Your task to perform on an android device: delete location history Image 0: 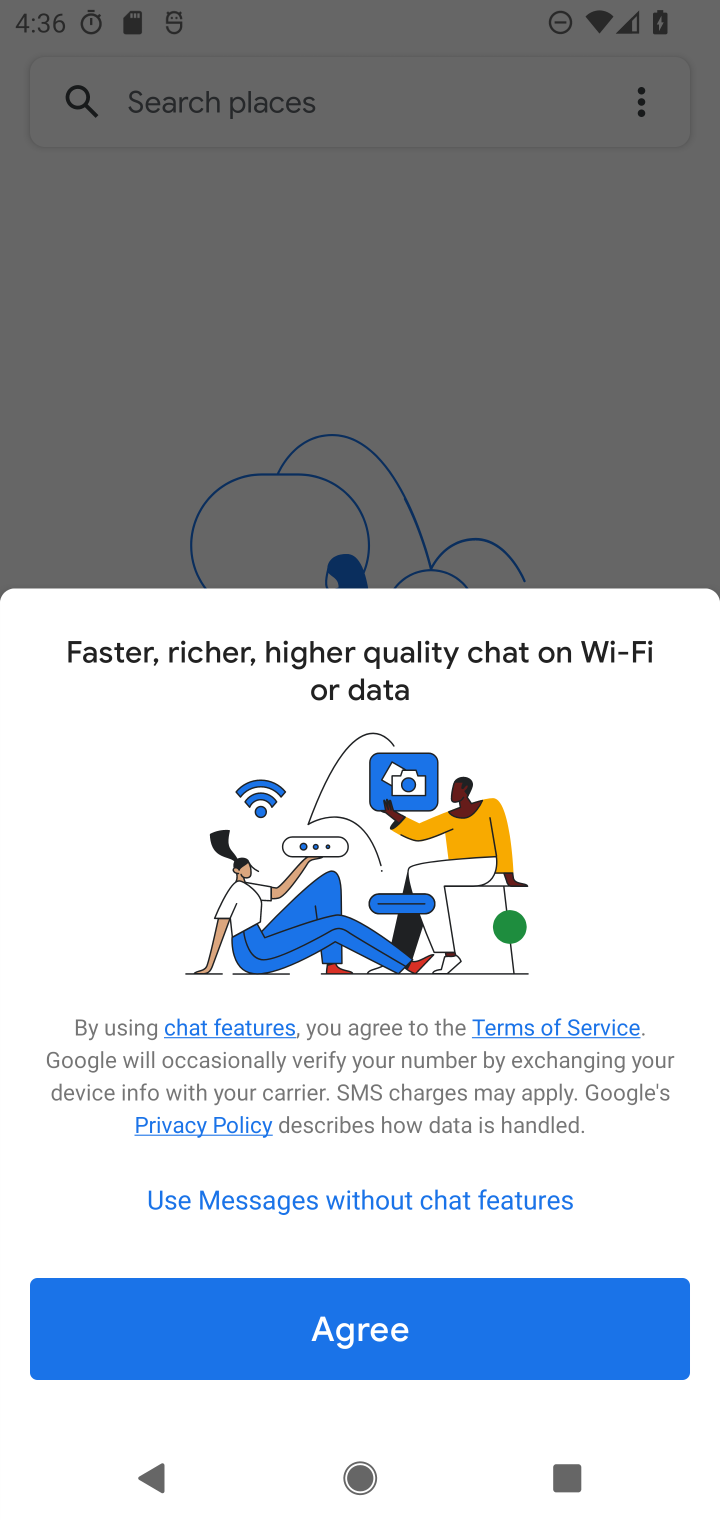
Step 0: press home button
Your task to perform on an android device: delete location history Image 1: 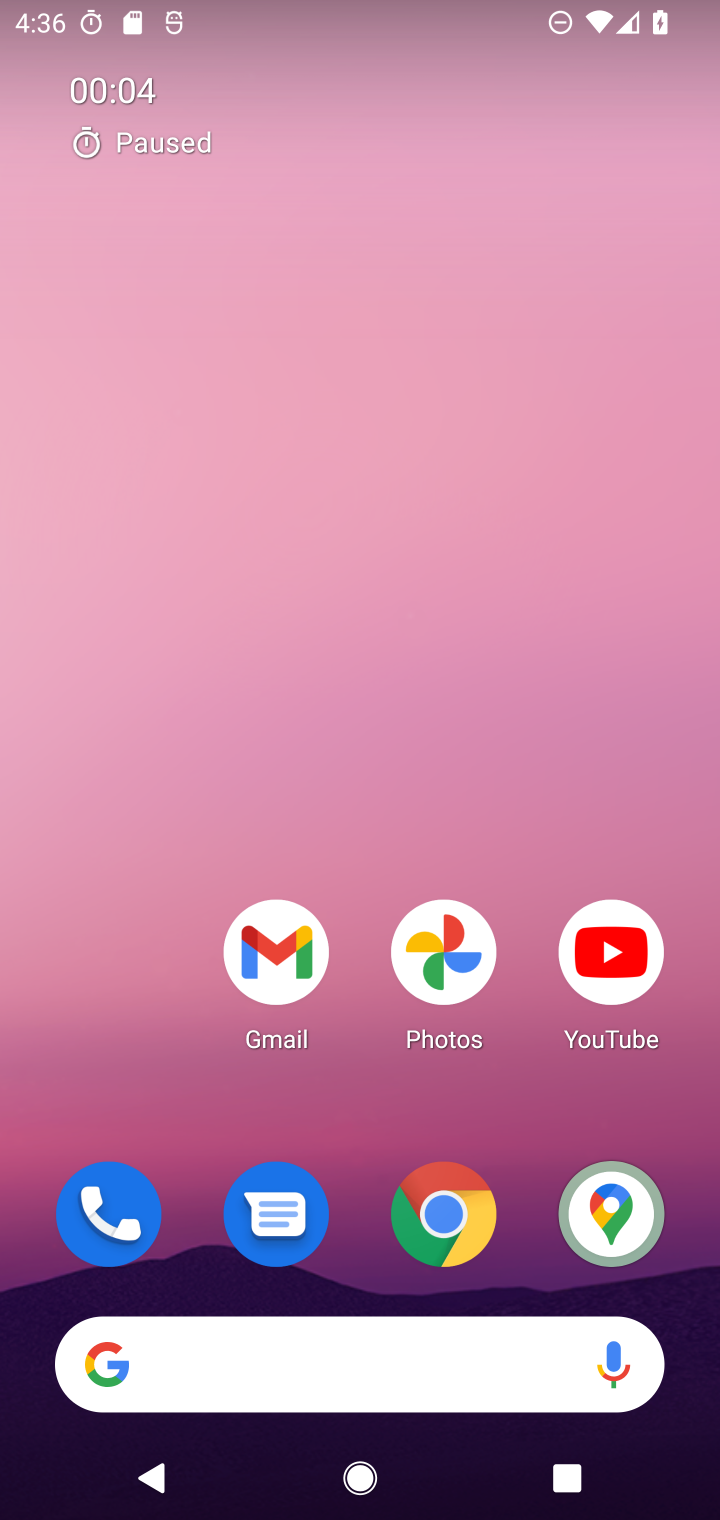
Step 1: drag from (393, 952) to (432, 592)
Your task to perform on an android device: delete location history Image 2: 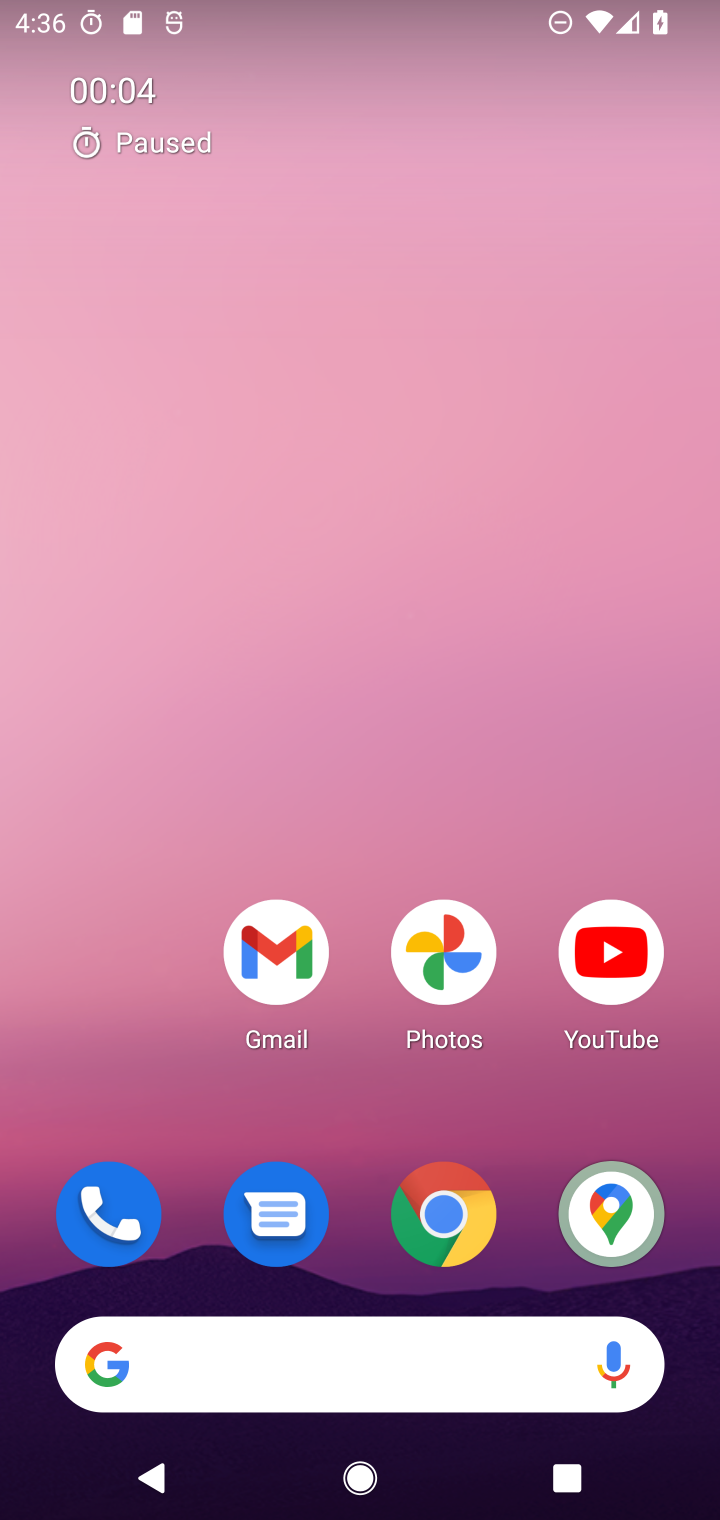
Step 2: drag from (346, 1236) to (406, 488)
Your task to perform on an android device: delete location history Image 3: 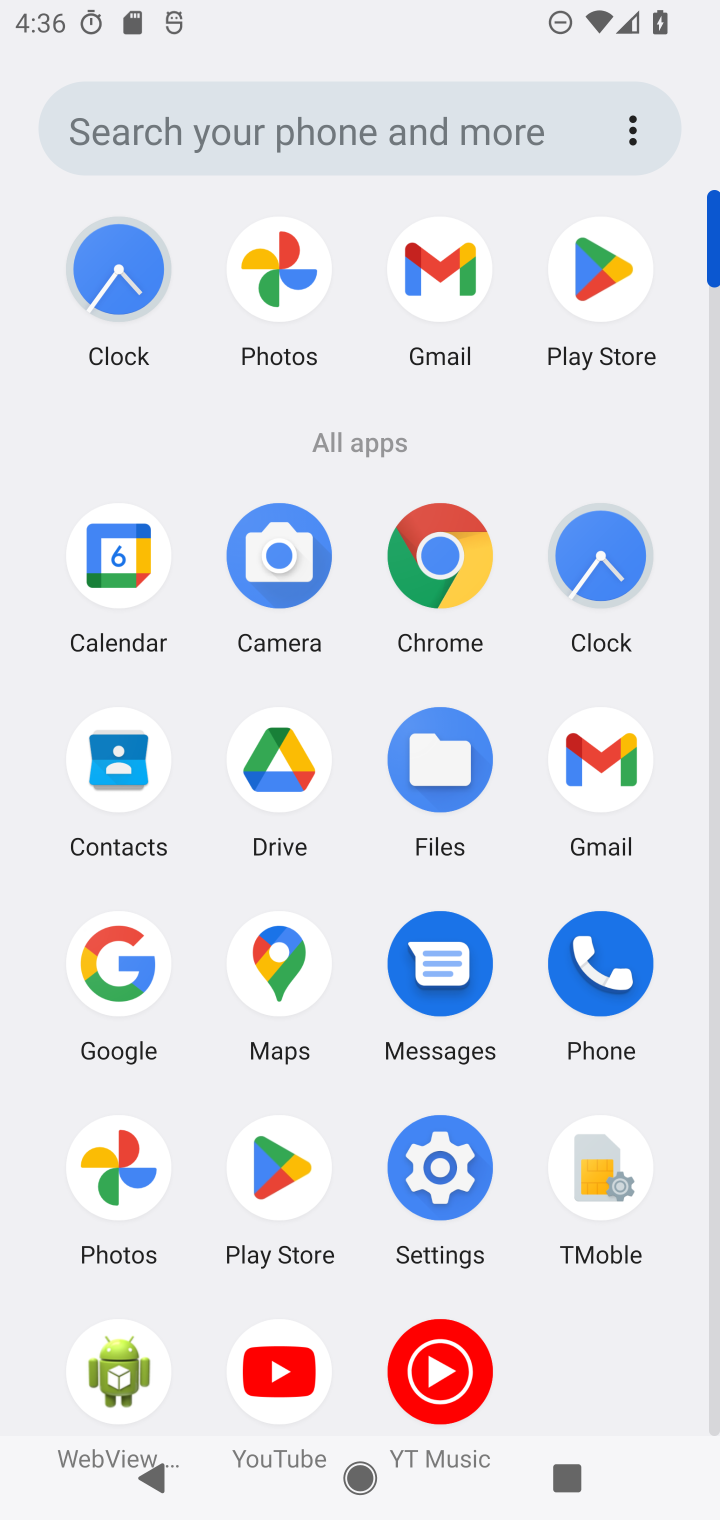
Step 3: click (438, 1175)
Your task to perform on an android device: delete location history Image 4: 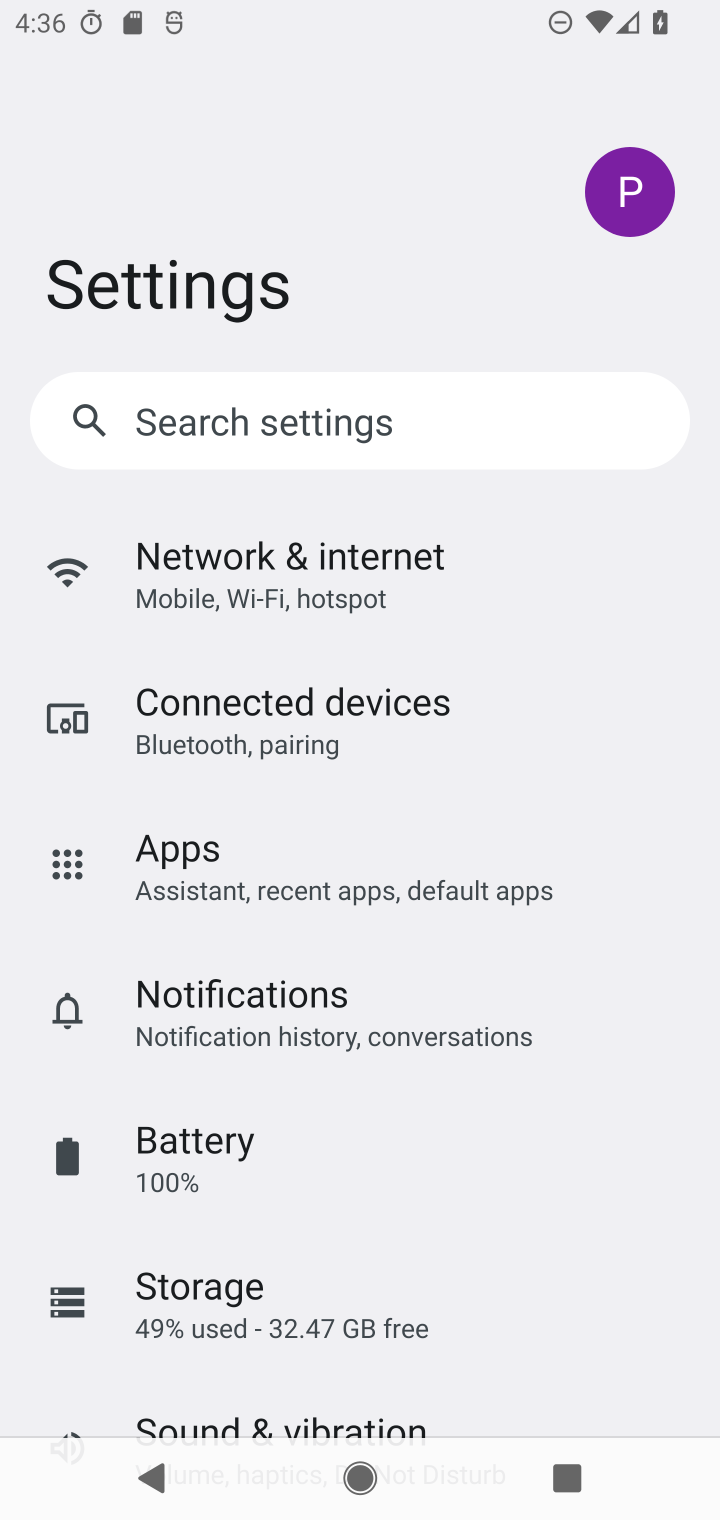
Step 4: drag from (449, 1050) to (453, 543)
Your task to perform on an android device: delete location history Image 5: 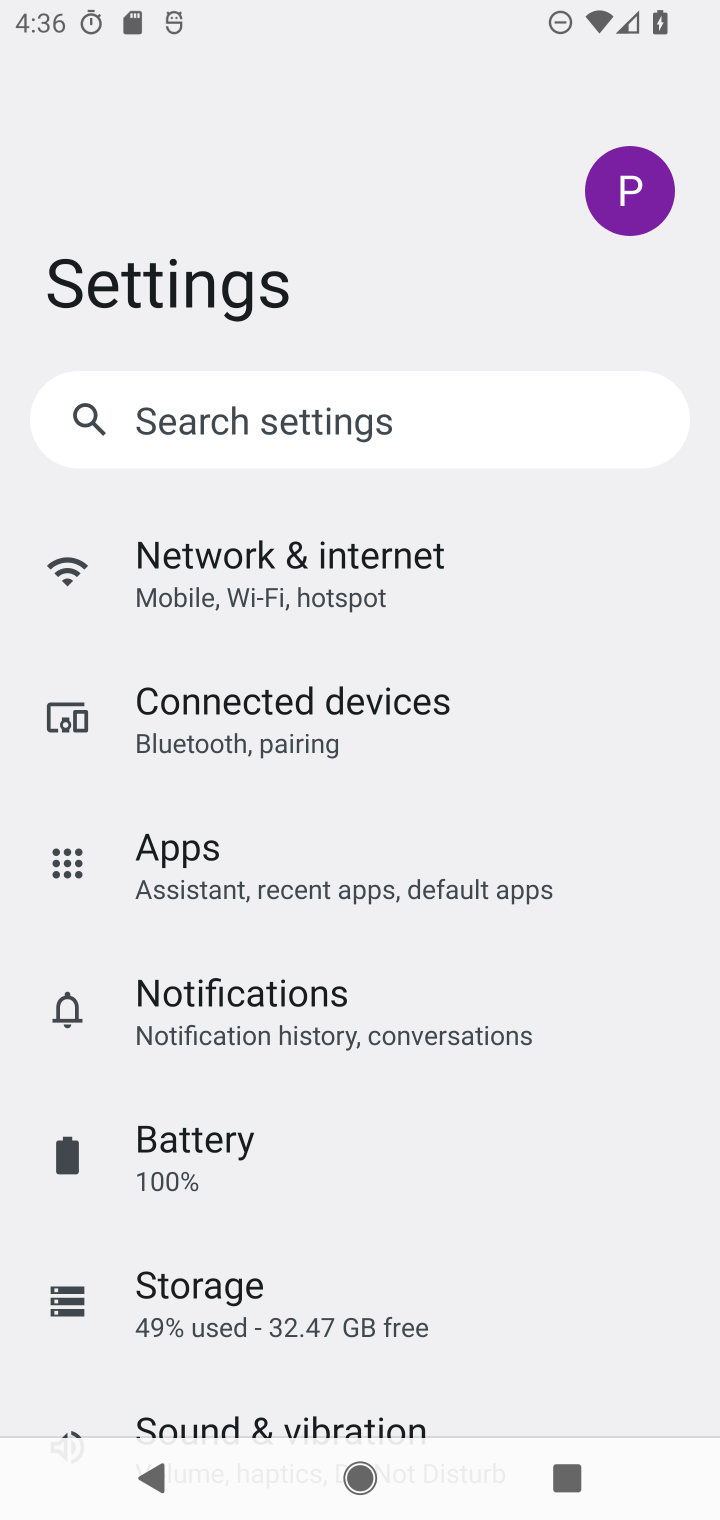
Step 5: drag from (201, 1168) to (382, 467)
Your task to perform on an android device: delete location history Image 6: 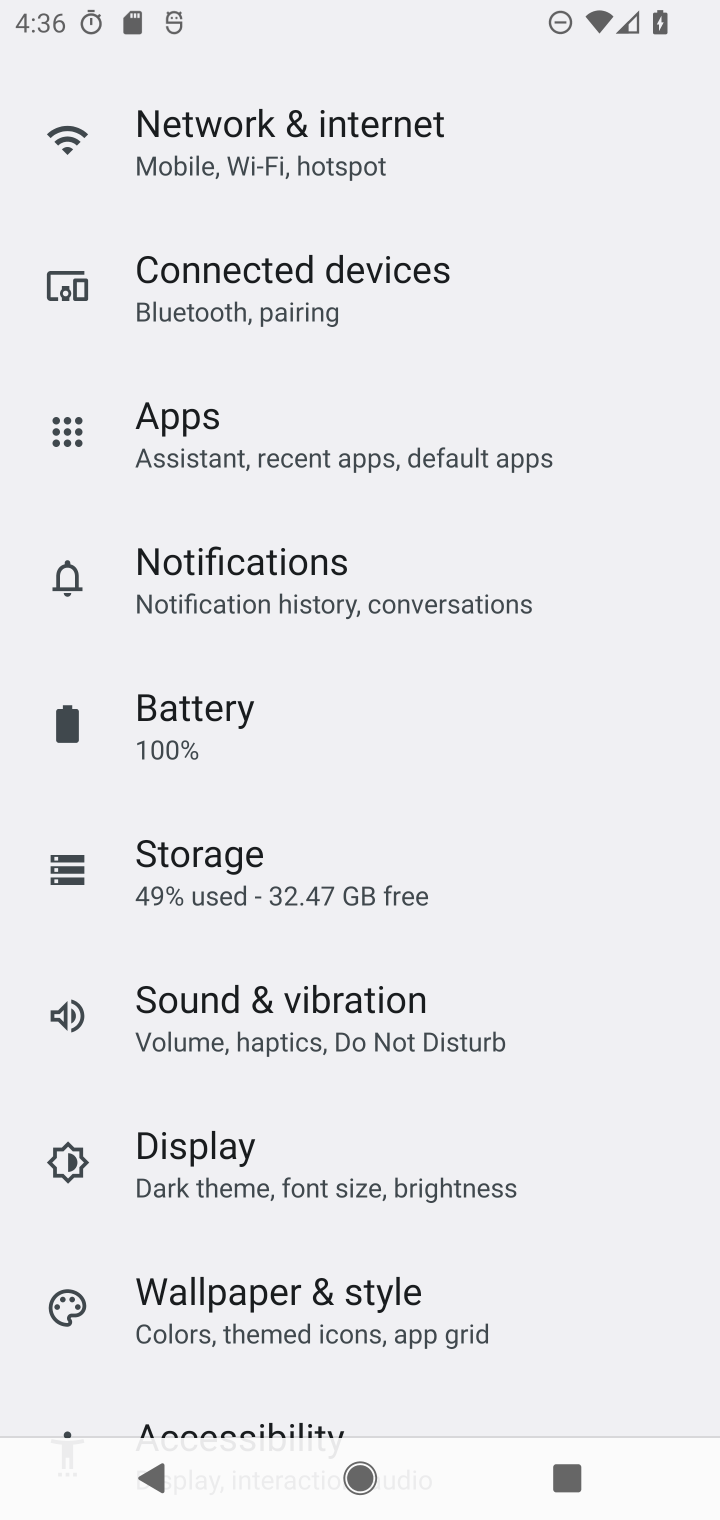
Step 6: drag from (258, 788) to (319, 495)
Your task to perform on an android device: delete location history Image 7: 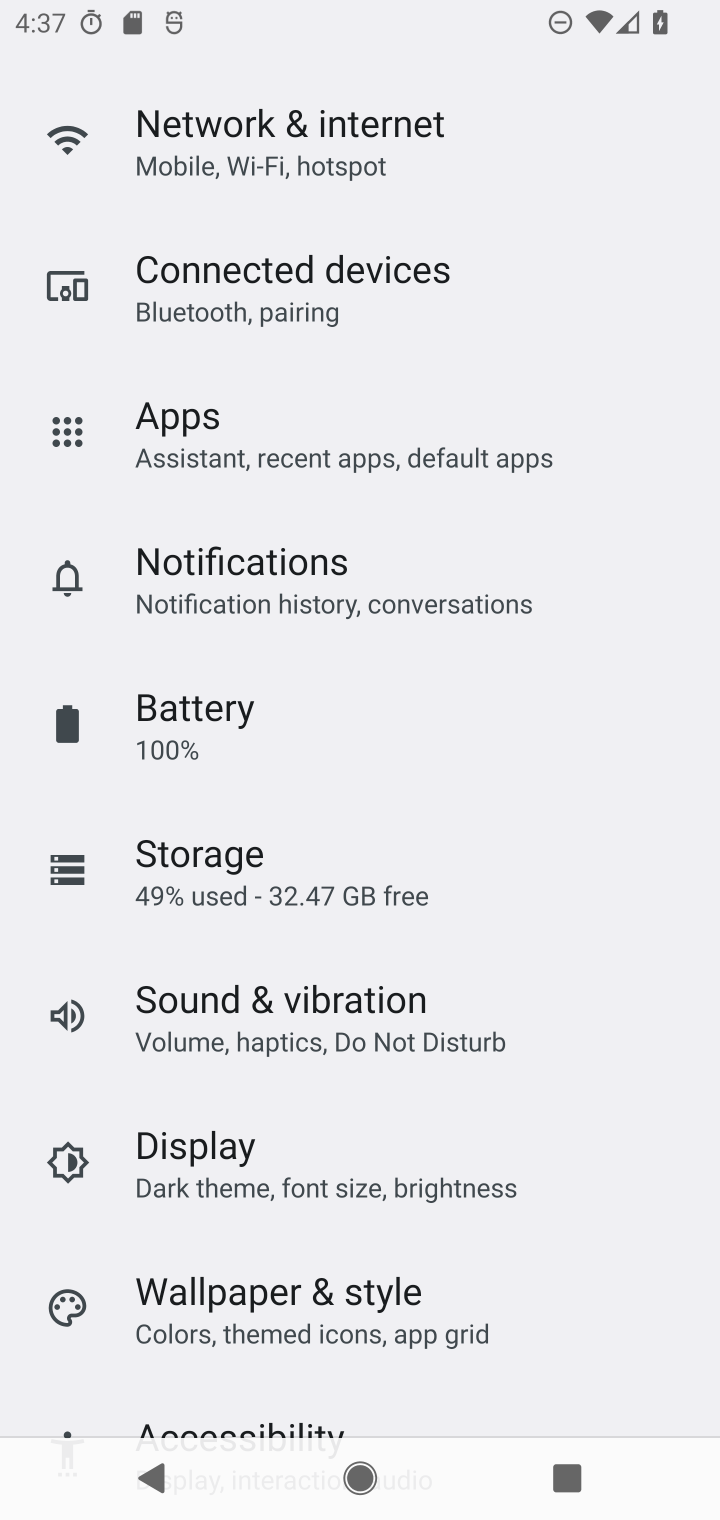
Step 7: drag from (309, 1169) to (390, 754)
Your task to perform on an android device: delete location history Image 8: 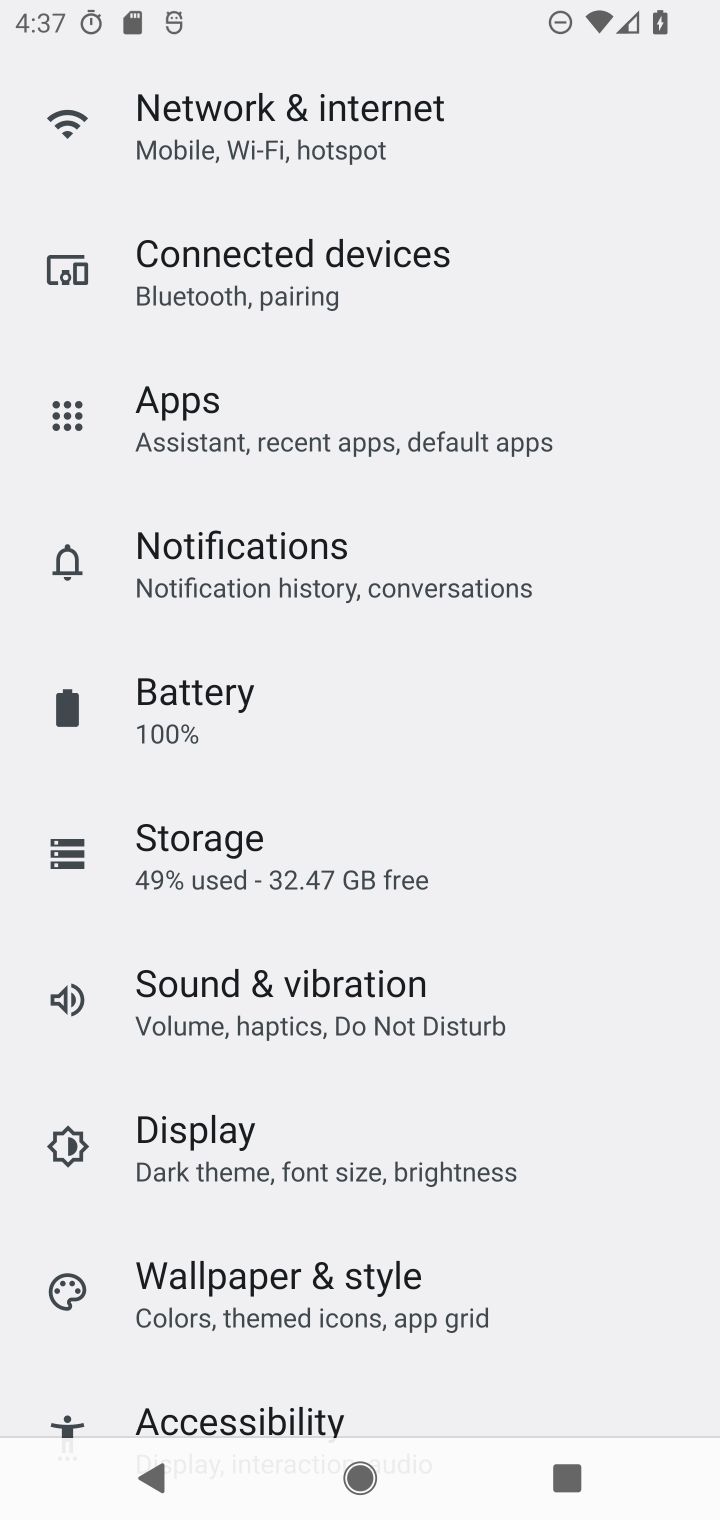
Step 8: drag from (270, 1160) to (281, 589)
Your task to perform on an android device: delete location history Image 9: 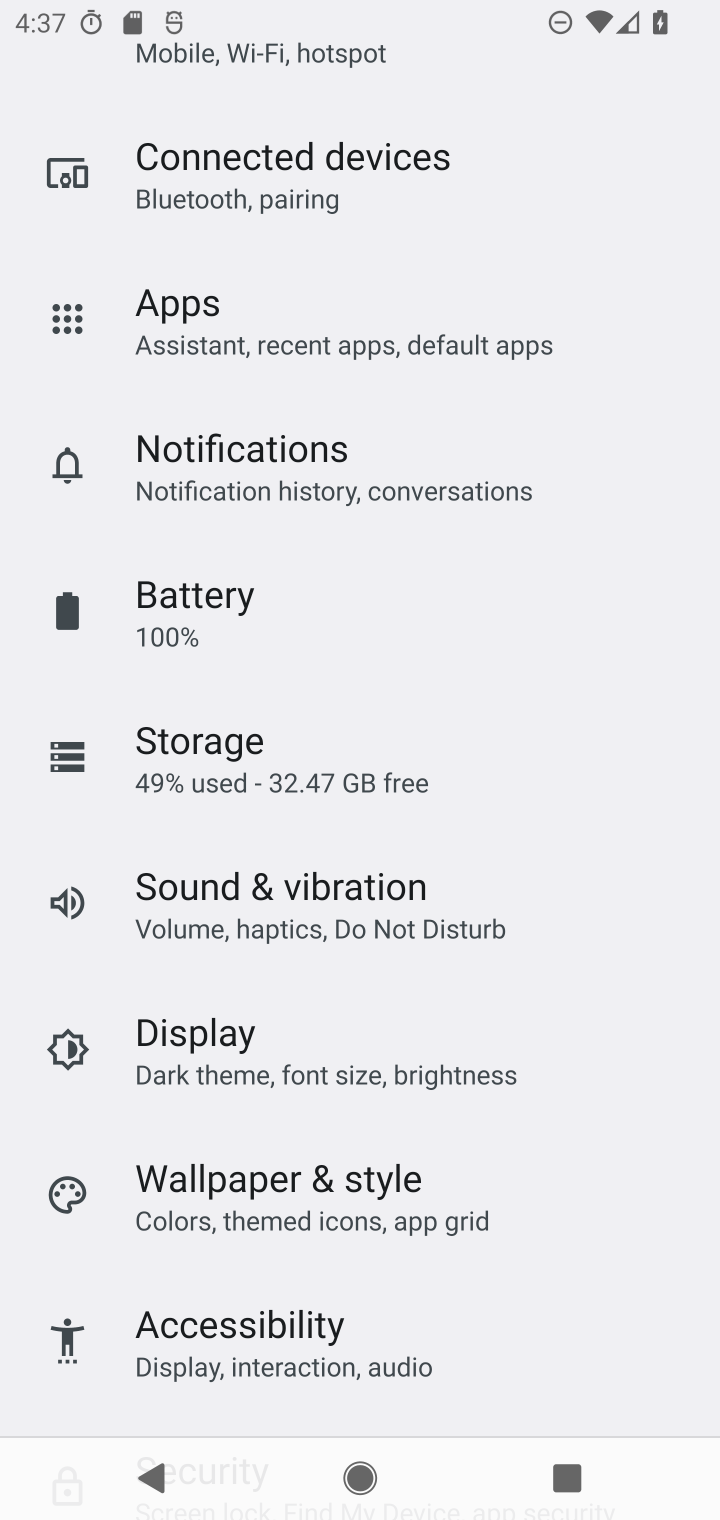
Step 9: drag from (289, 1167) to (289, 436)
Your task to perform on an android device: delete location history Image 10: 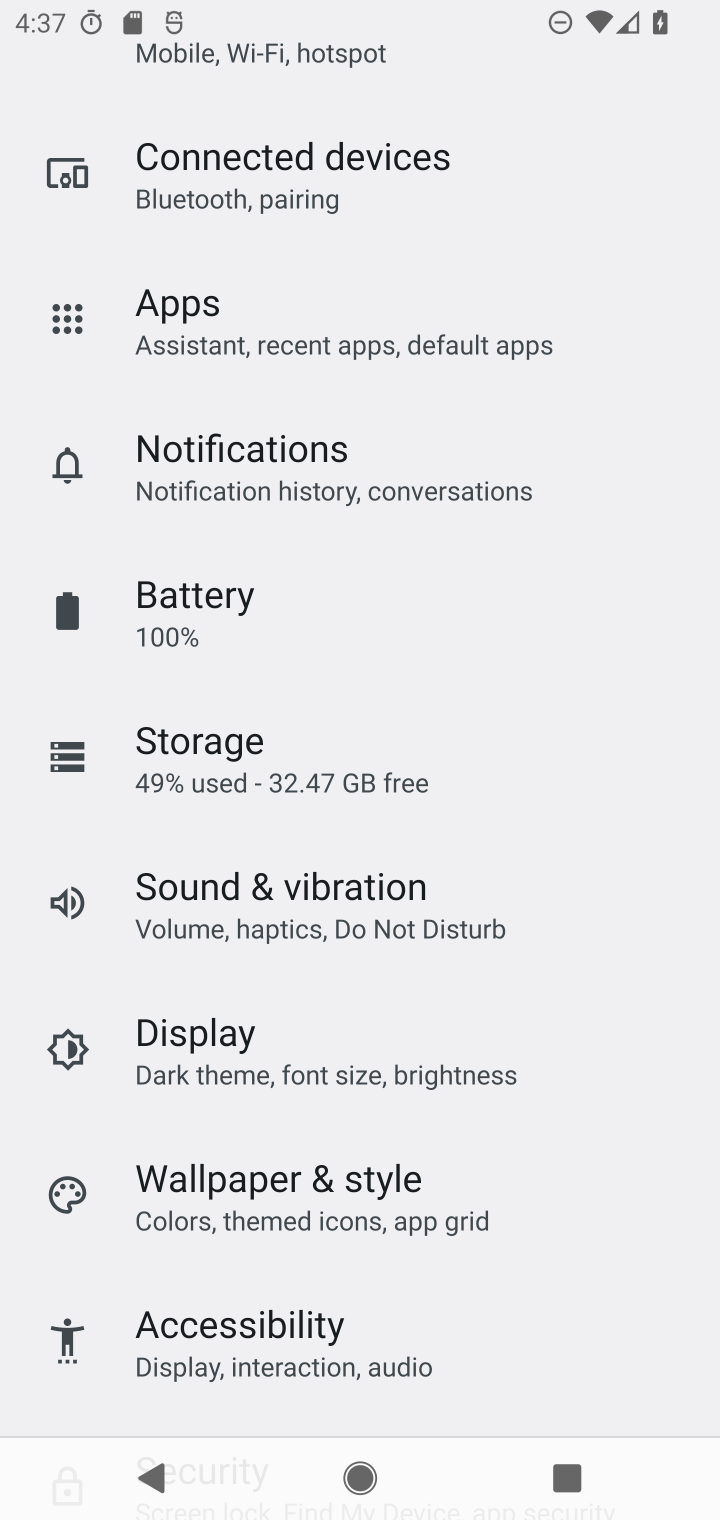
Step 10: drag from (377, 1182) to (463, 187)
Your task to perform on an android device: delete location history Image 11: 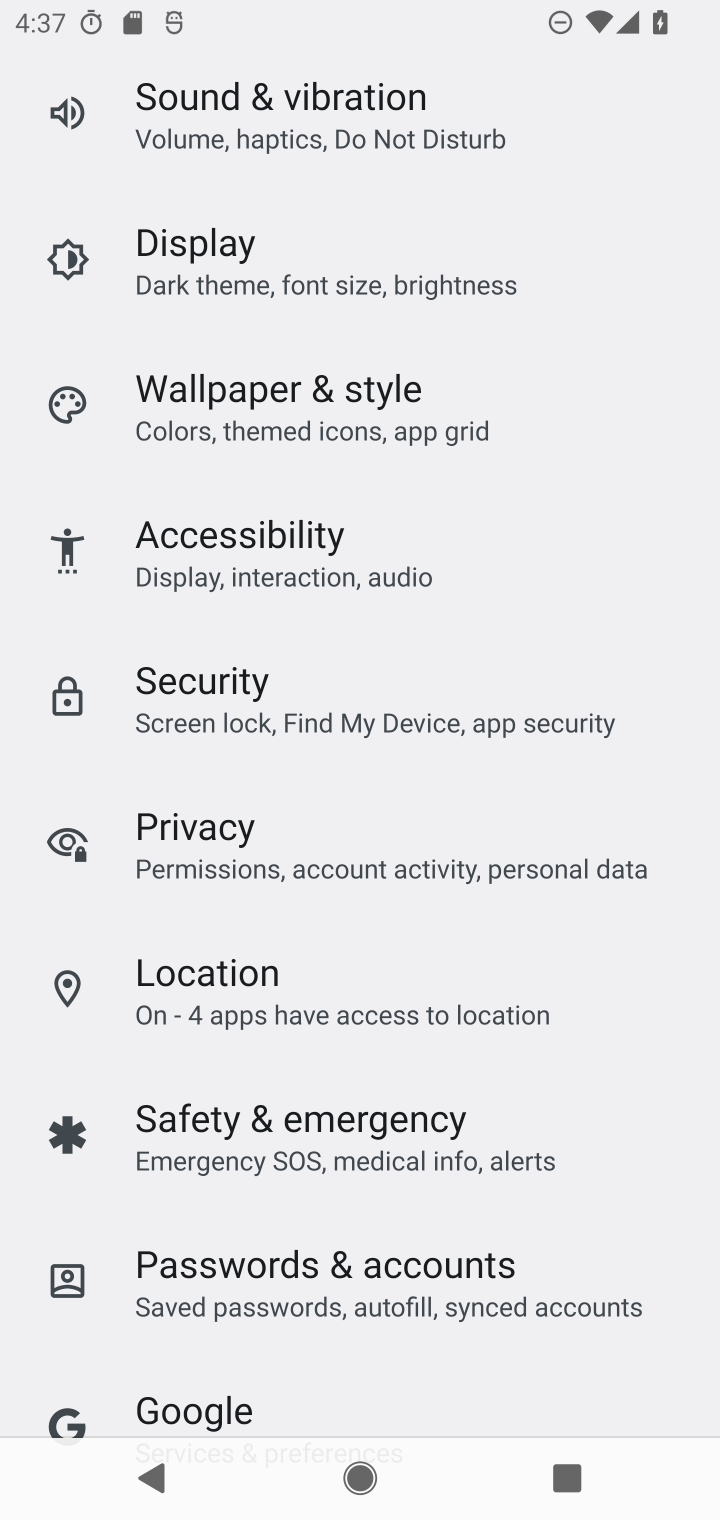
Step 11: click (189, 1019)
Your task to perform on an android device: delete location history Image 12: 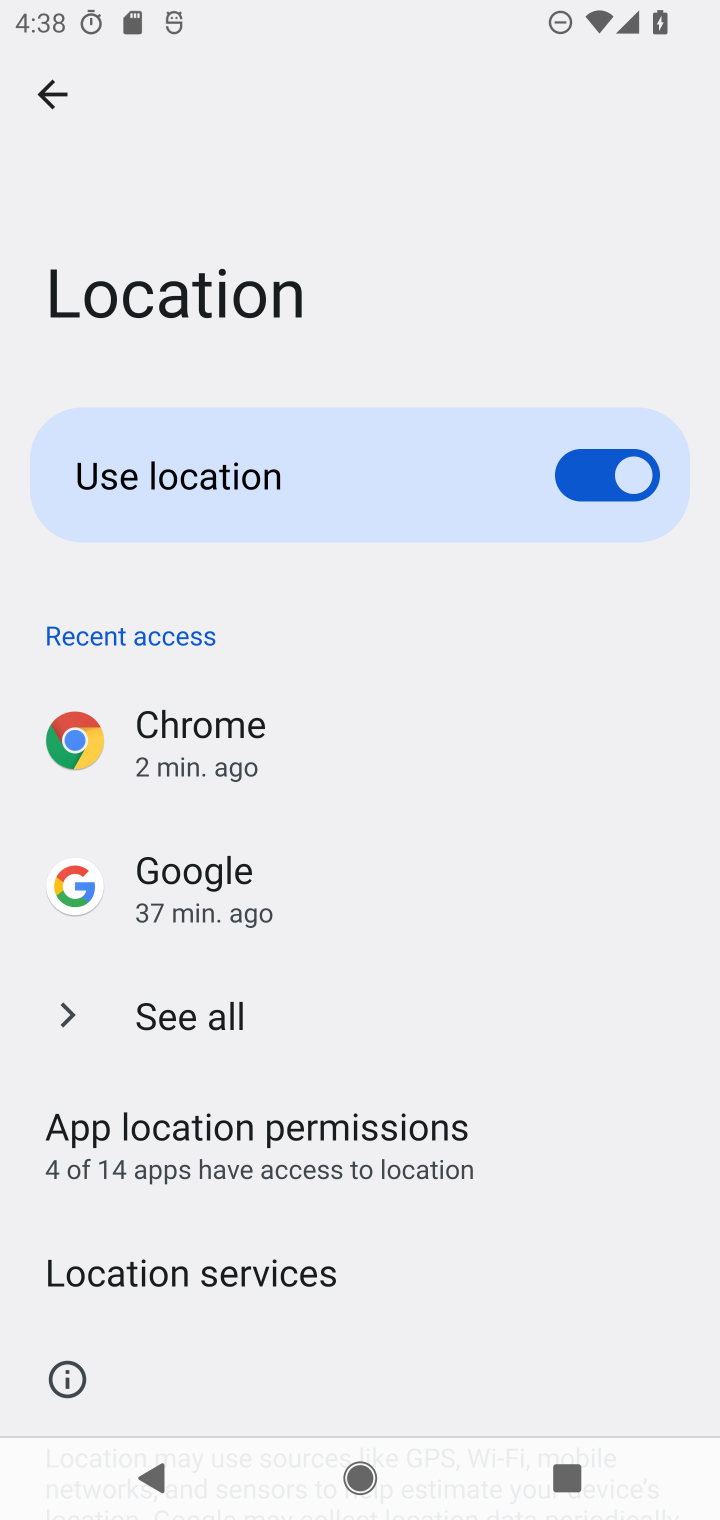
Step 12: press home button
Your task to perform on an android device: delete location history Image 13: 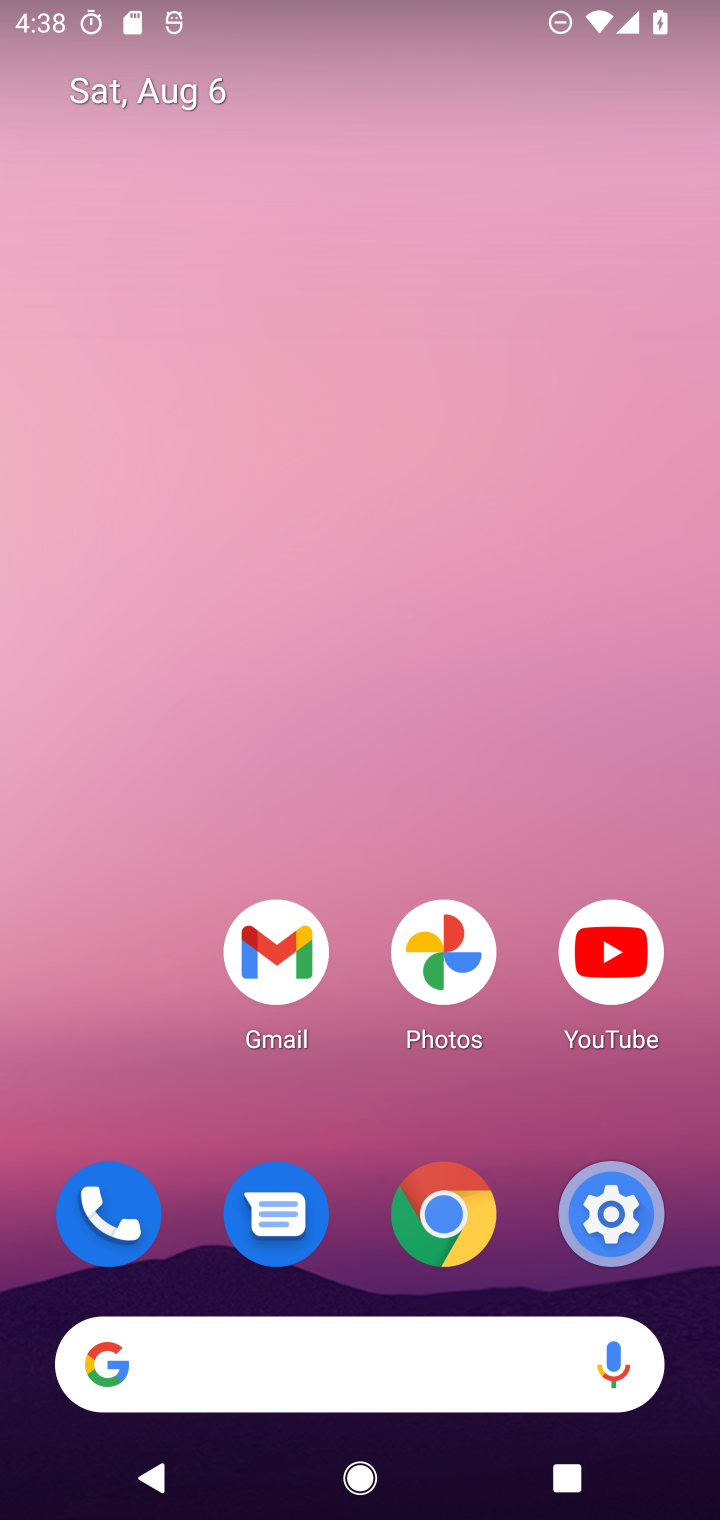
Step 13: click (605, 1213)
Your task to perform on an android device: delete location history Image 14: 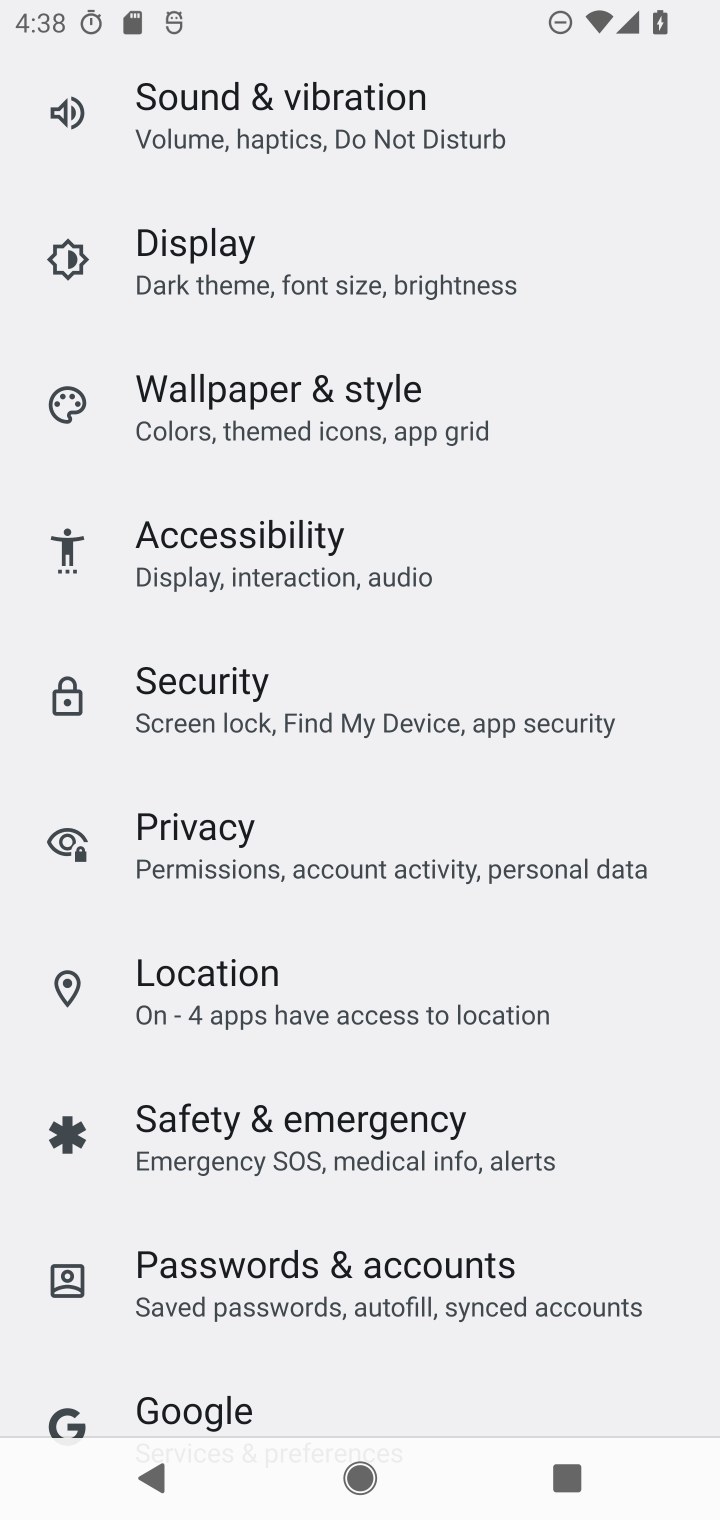
Step 14: click (306, 1000)
Your task to perform on an android device: delete location history Image 15: 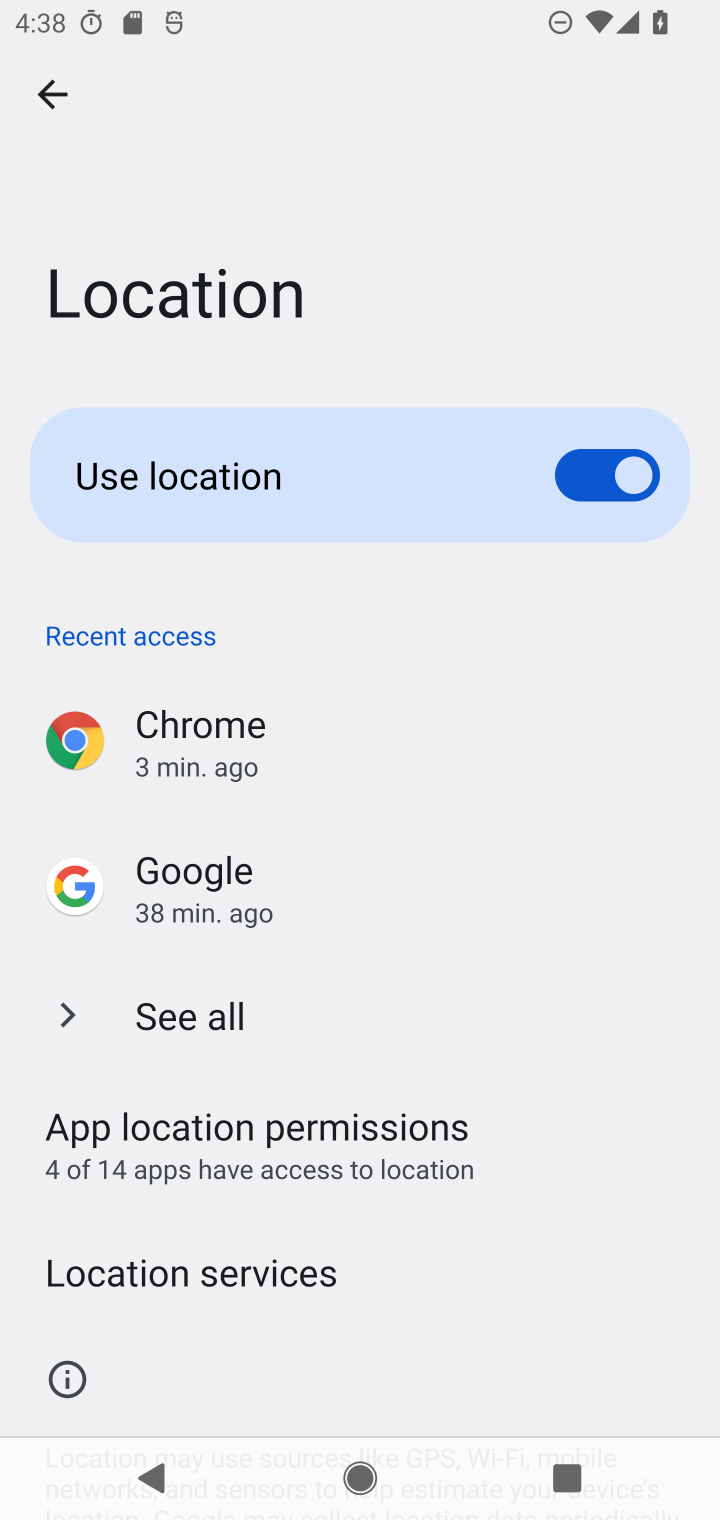
Step 15: drag from (291, 1305) to (287, 623)
Your task to perform on an android device: delete location history Image 16: 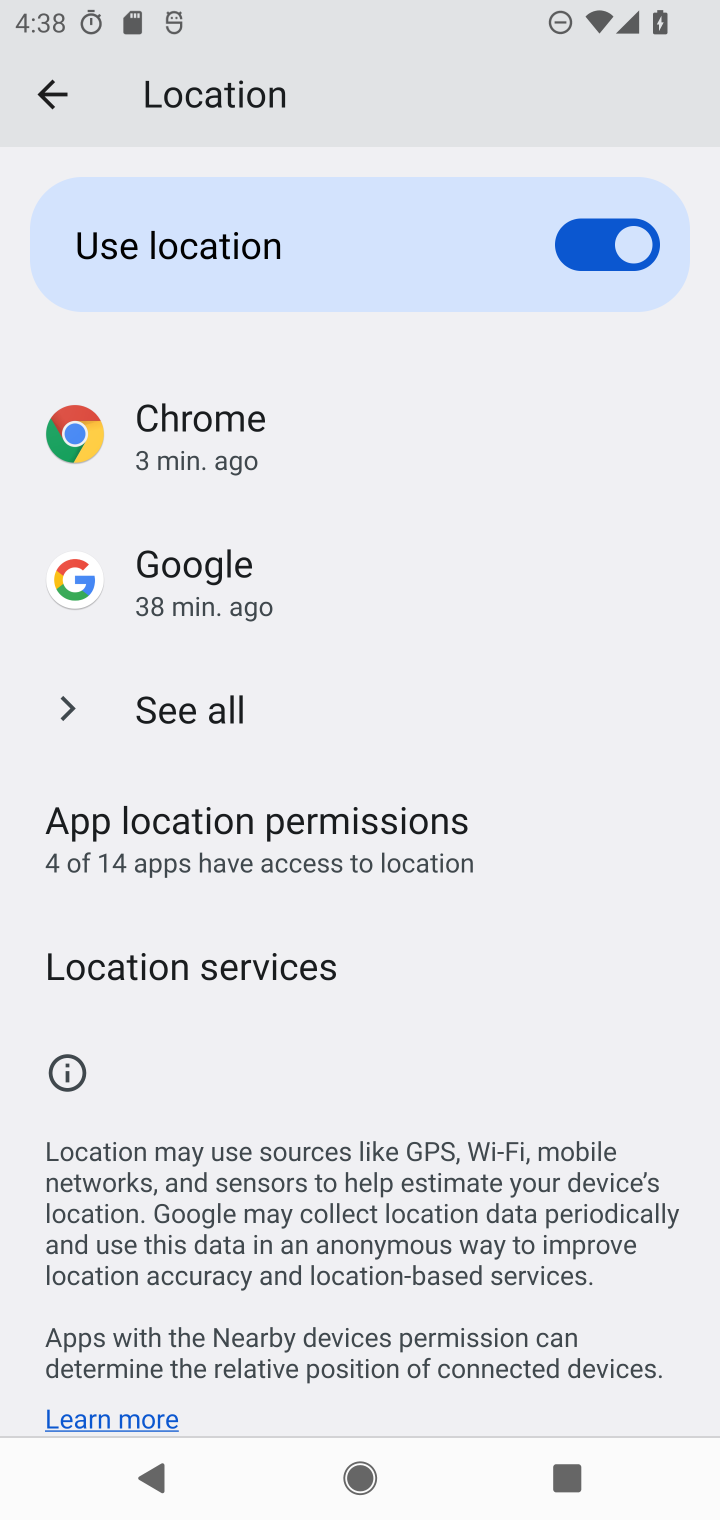
Step 16: click (189, 989)
Your task to perform on an android device: delete location history Image 17: 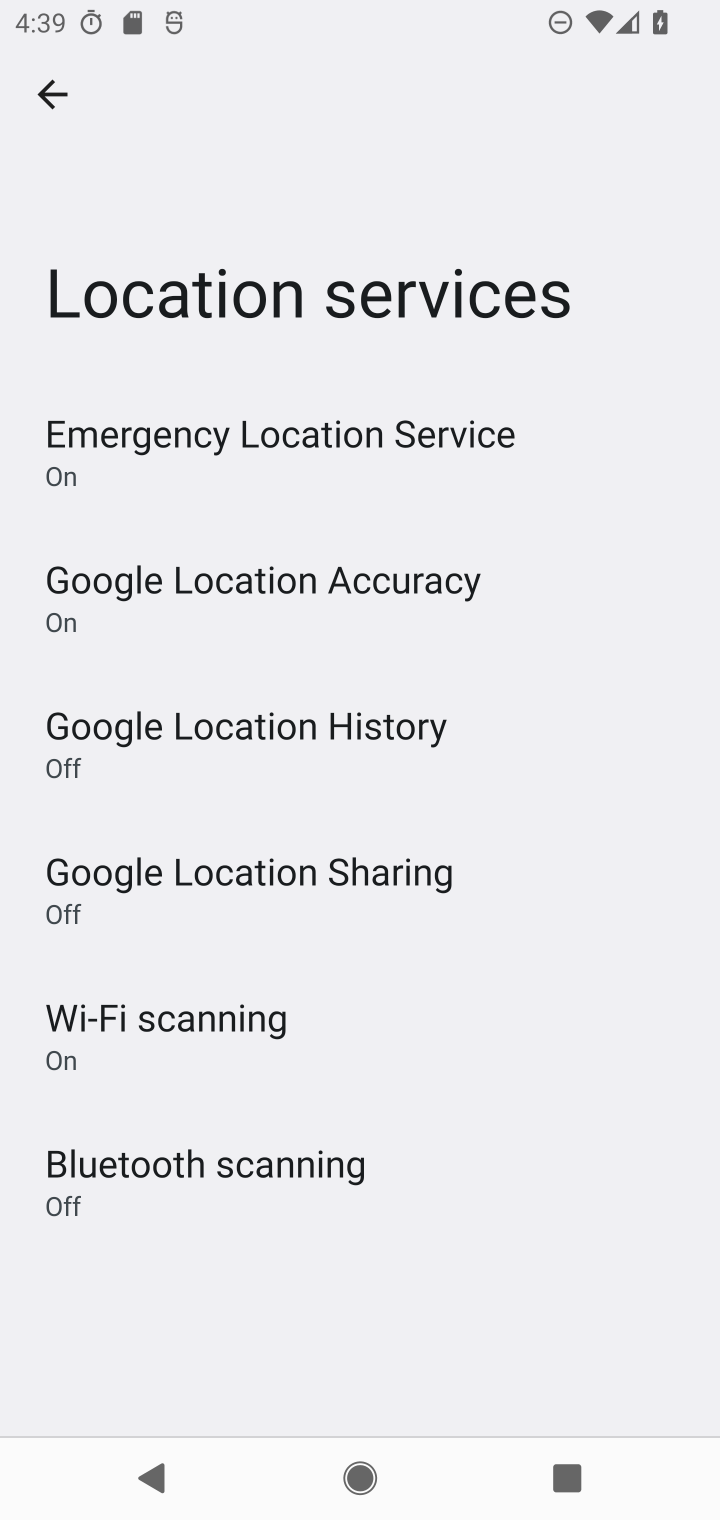
Step 17: click (241, 728)
Your task to perform on an android device: delete location history Image 18: 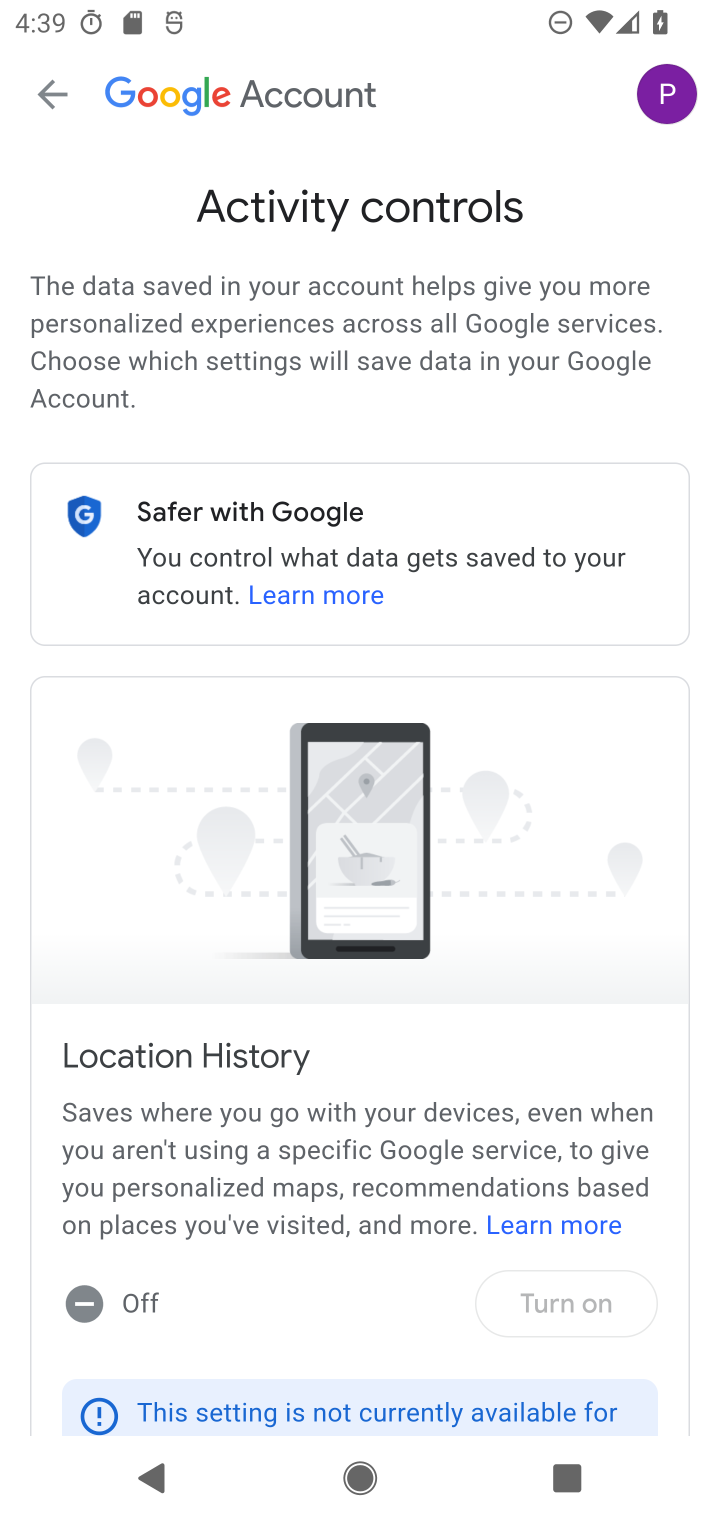
Step 18: drag from (405, 1312) to (405, 806)
Your task to perform on an android device: delete location history Image 19: 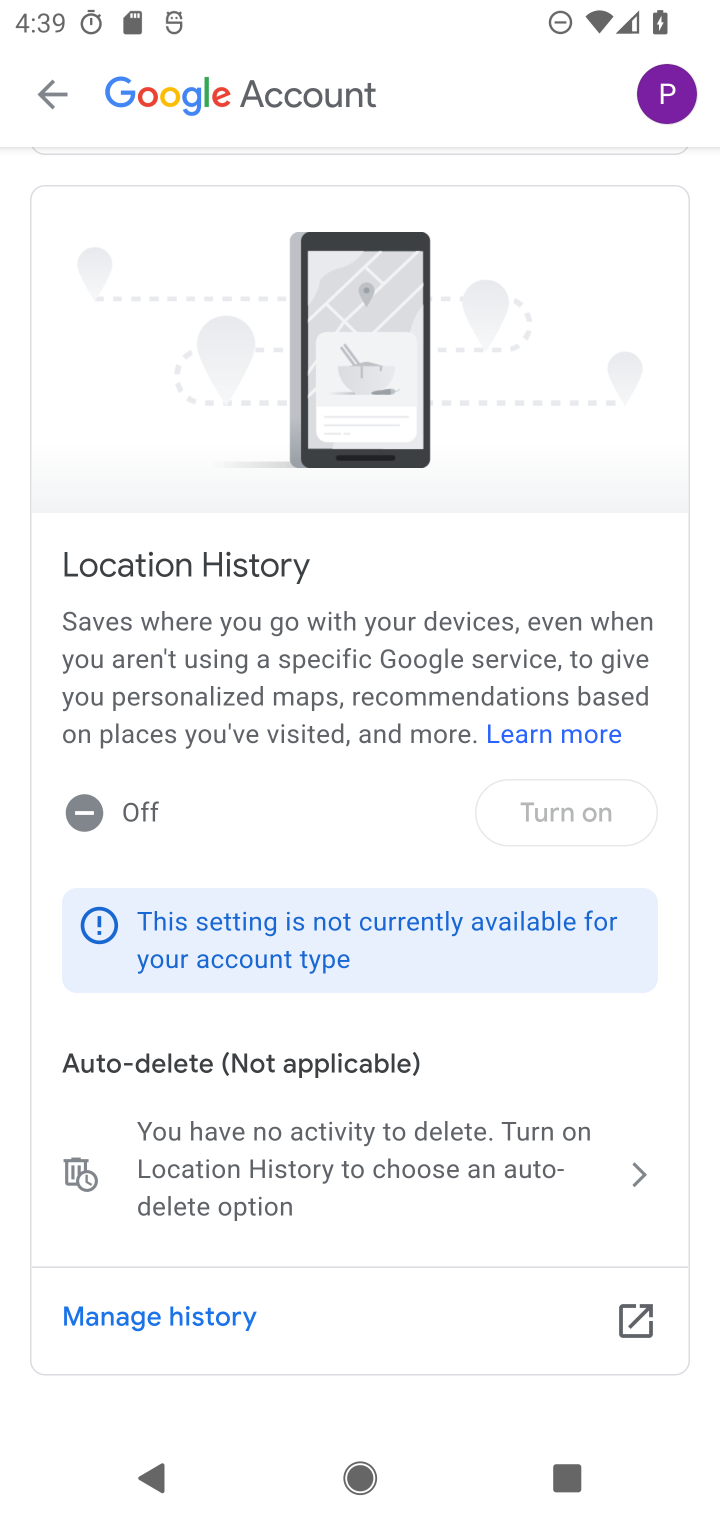
Step 19: click (152, 1309)
Your task to perform on an android device: delete location history Image 20: 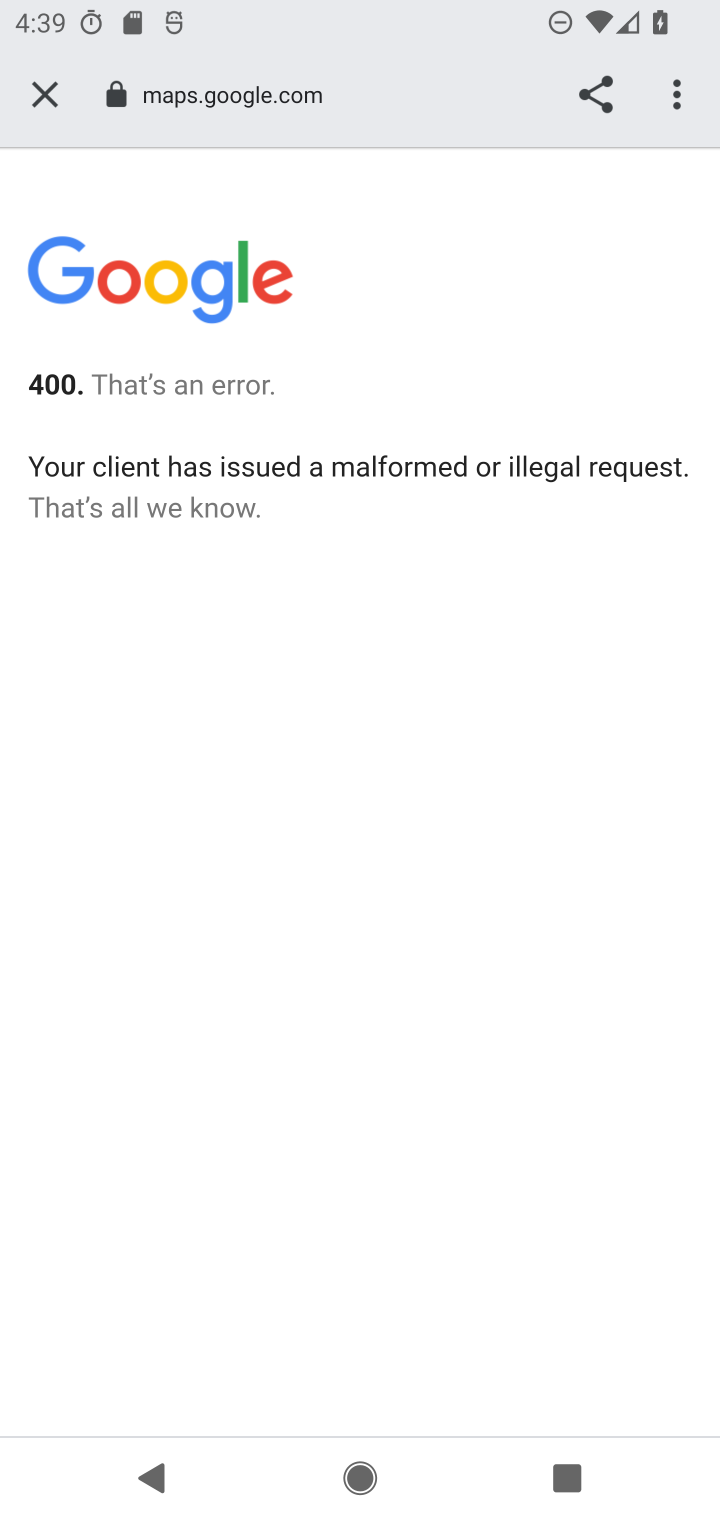
Step 20: click (39, 95)
Your task to perform on an android device: delete location history Image 21: 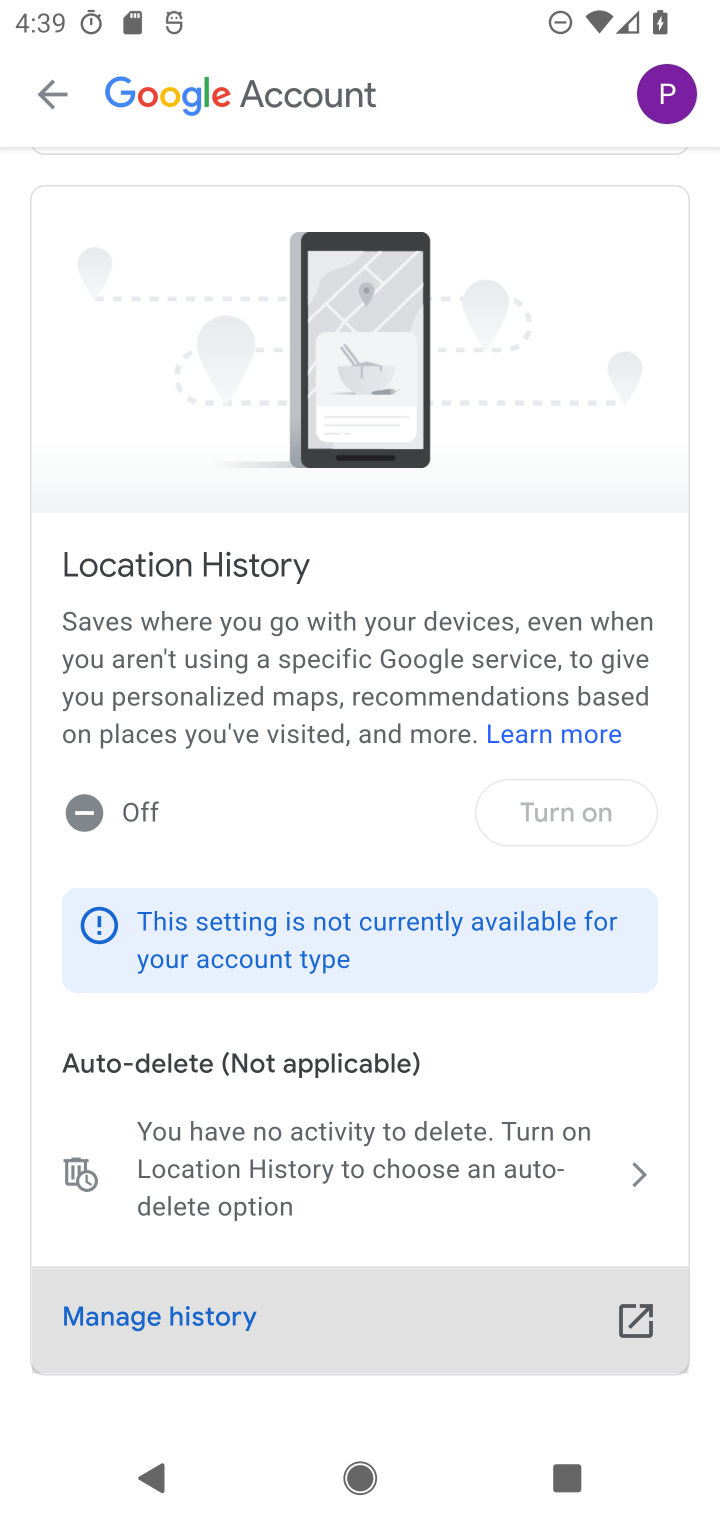
Step 21: click (178, 1321)
Your task to perform on an android device: delete location history Image 22: 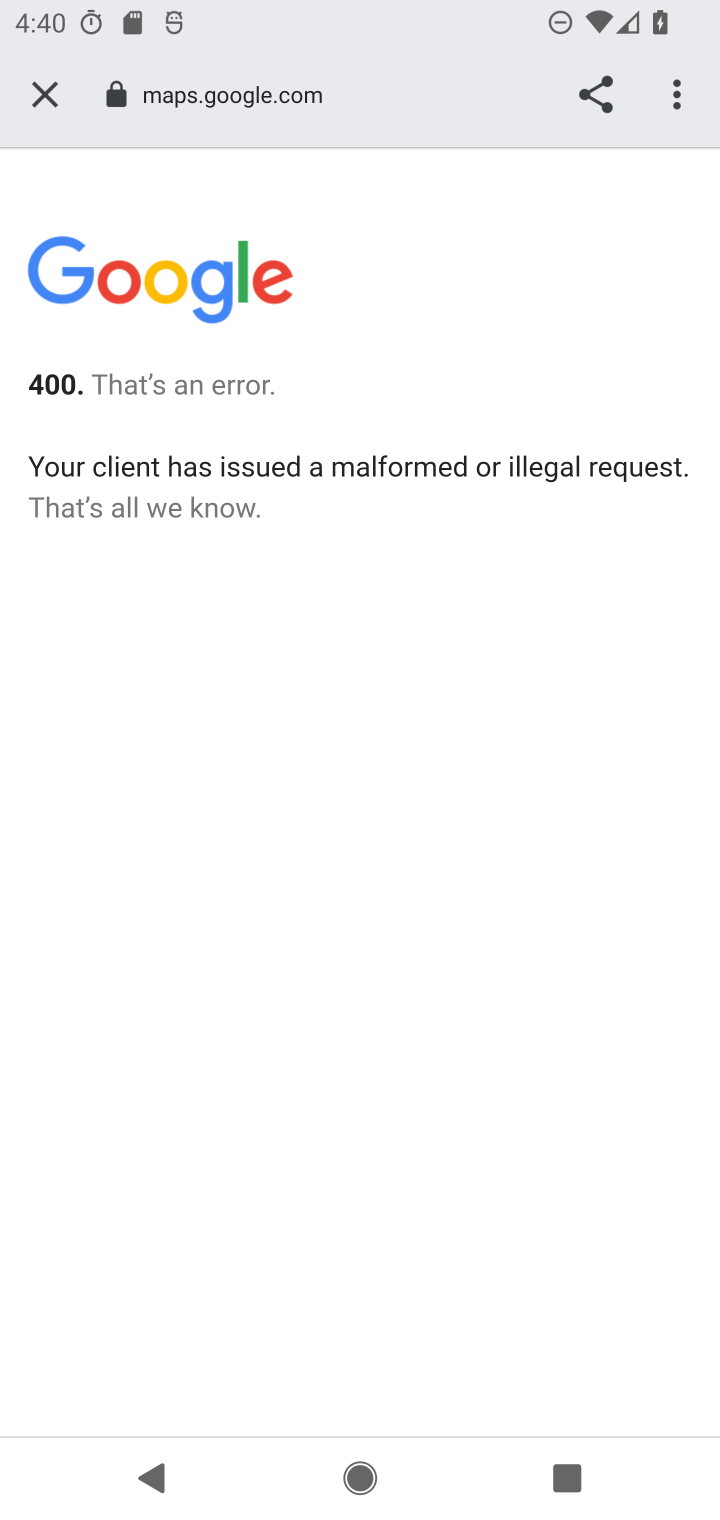
Step 22: task complete